Your task to perform on an android device: change keyboard looks Image 0: 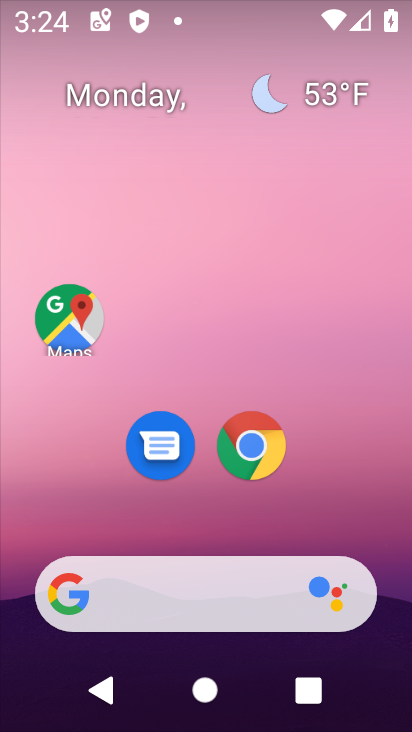
Step 0: drag from (239, 523) to (264, 1)
Your task to perform on an android device: change keyboard looks Image 1: 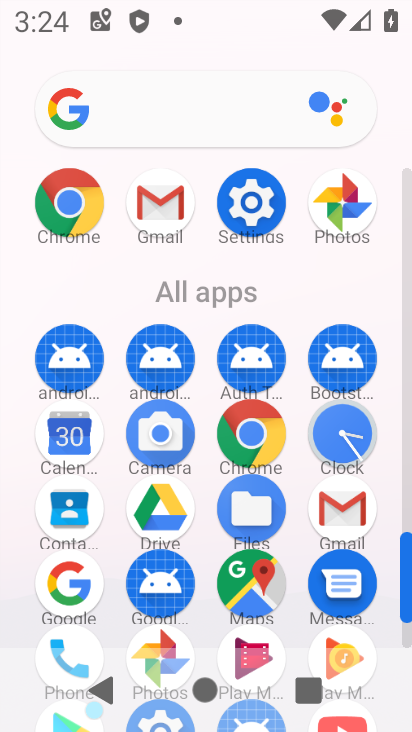
Step 1: click (239, 207)
Your task to perform on an android device: change keyboard looks Image 2: 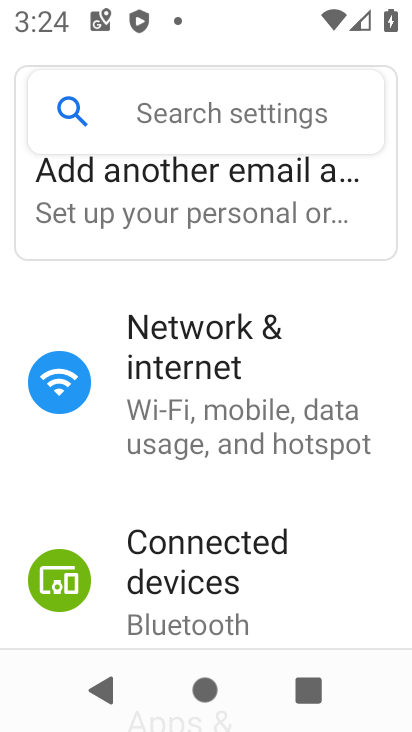
Step 2: drag from (202, 502) to (259, 140)
Your task to perform on an android device: change keyboard looks Image 3: 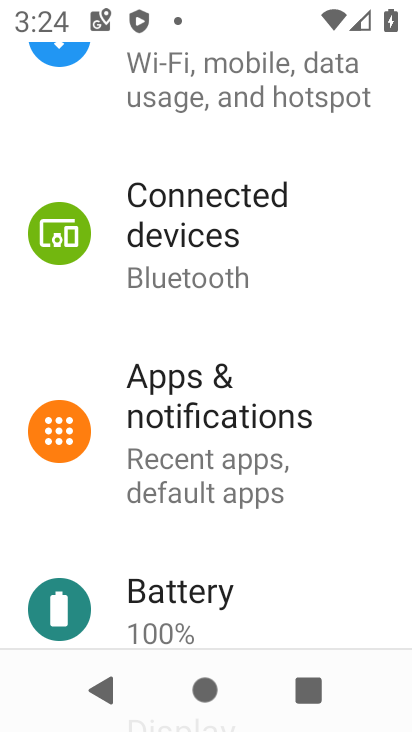
Step 3: drag from (219, 514) to (251, 125)
Your task to perform on an android device: change keyboard looks Image 4: 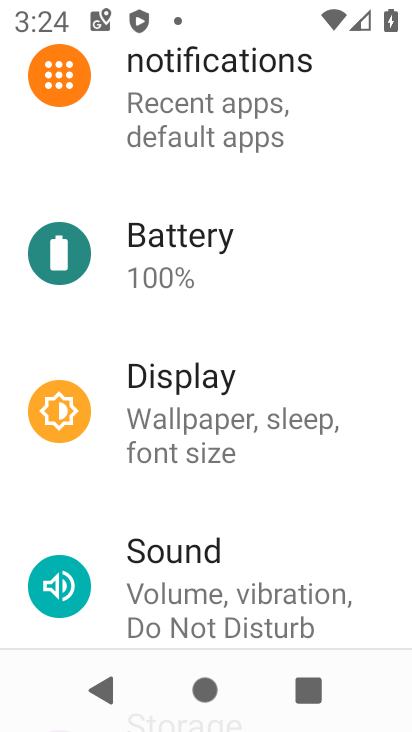
Step 4: drag from (184, 542) to (215, 262)
Your task to perform on an android device: change keyboard looks Image 5: 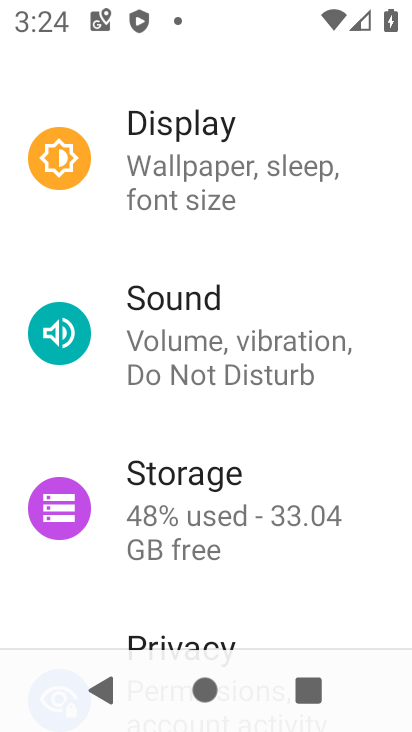
Step 5: drag from (188, 583) to (239, 235)
Your task to perform on an android device: change keyboard looks Image 6: 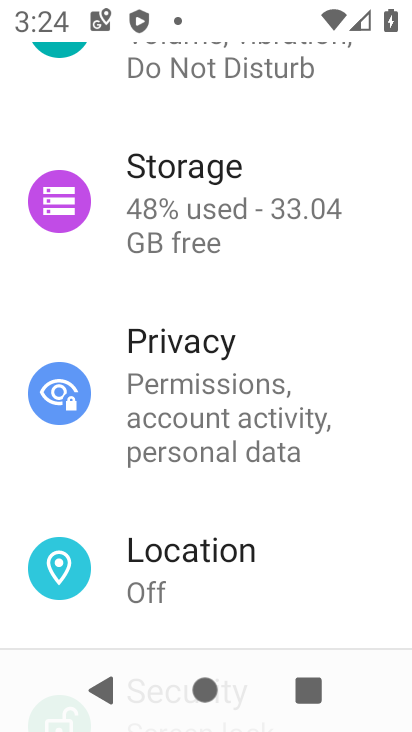
Step 6: drag from (171, 557) to (228, 279)
Your task to perform on an android device: change keyboard looks Image 7: 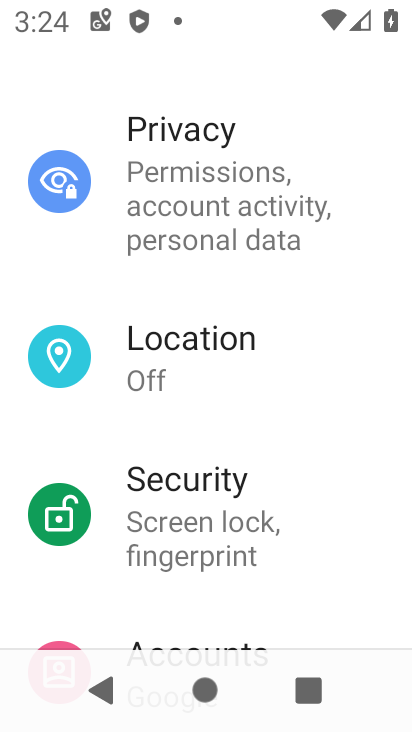
Step 7: drag from (209, 516) to (240, 284)
Your task to perform on an android device: change keyboard looks Image 8: 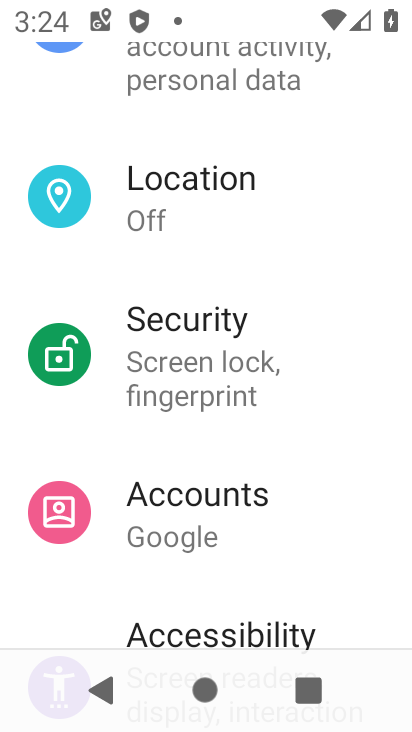
Step 8: drag from (204, 473) to (260, 208)
Your task to perform on an android device: change keyboard looks Image 9: 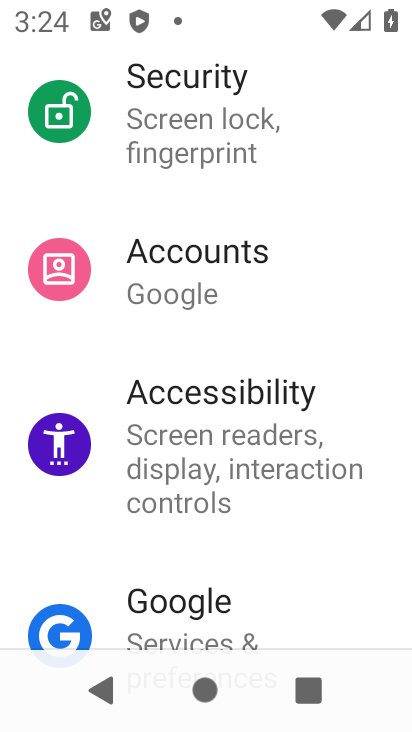
Step 9: drag from (184, 564) to (284, 104)
Your task to perform on an android device: change keyboard looks Image 10: 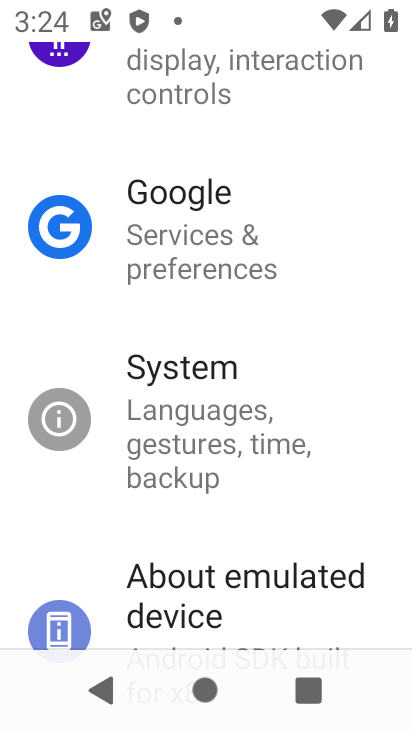
Step 10: click (180, 403)
Your task to perform on an android device: change keyboard looks Image 11: 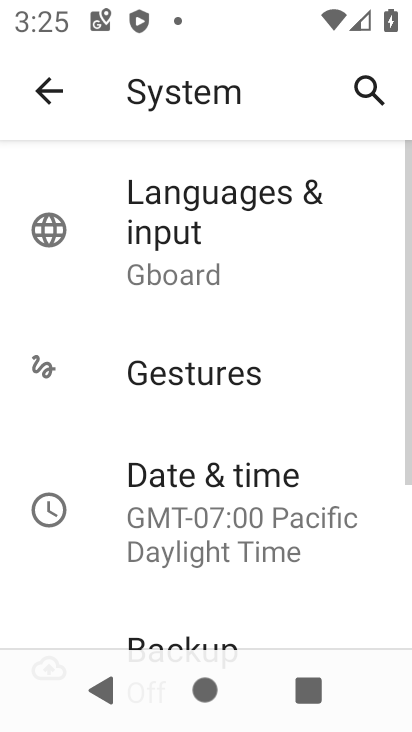
Step 11: drag from (178, 501) to (226, 238)
Your task to perform on an android device: change keyboard looks Image 12: 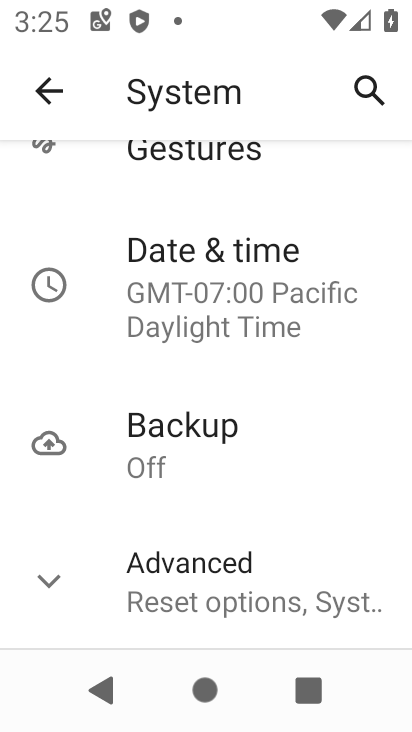
Step 12: drag from (222, 242) to (161, 726)
Your task to perform on an android device: change keyboard looks Image 13: 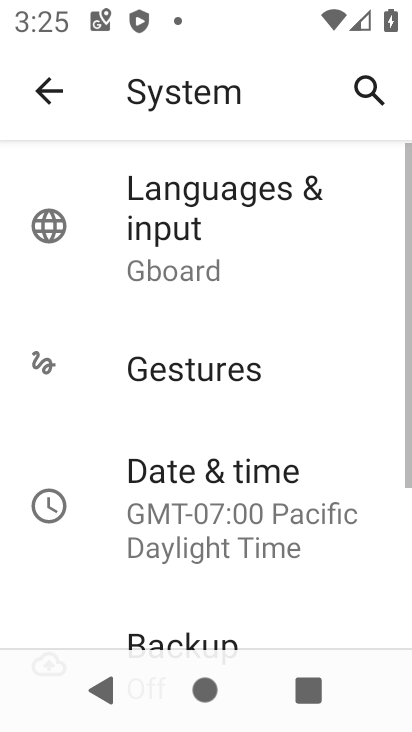
Step 13: click (184, 247)
Your task to perform on an android device: change keyboard looks Image 14: 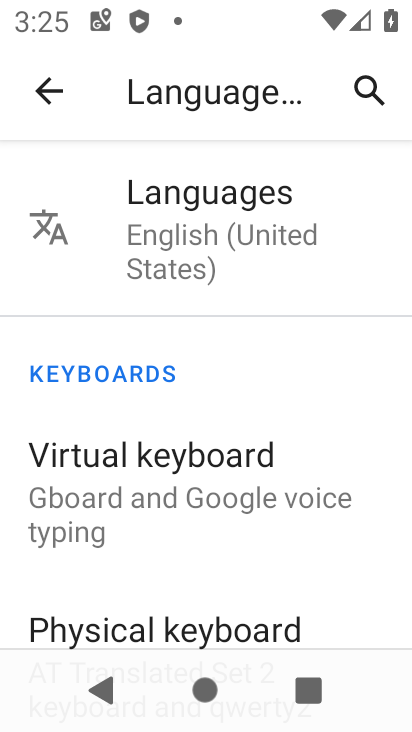
Step 14: click (139, 495)
Your task to perform on an android device: change keyboard looks Image 15: 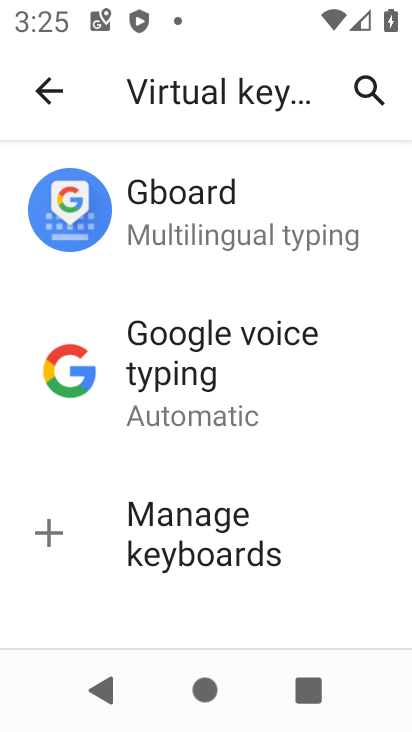
Step 15: click (201, 240)
Your task to perform on an android device: change keyboard looks Image 16: 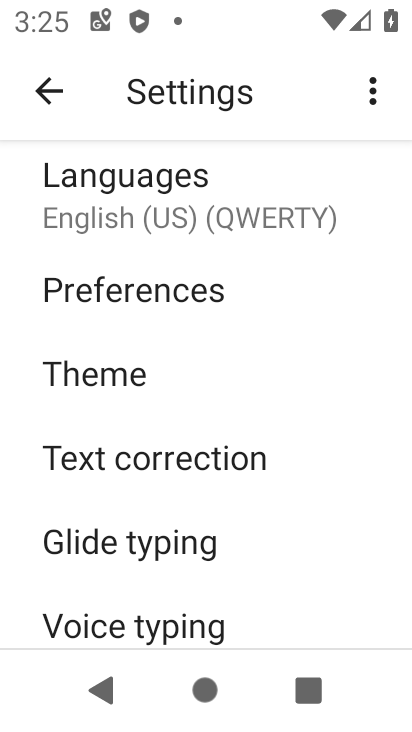
Step 16: click (133, 372)
Your task to perform on an android device: change keyboard looks Image 17: 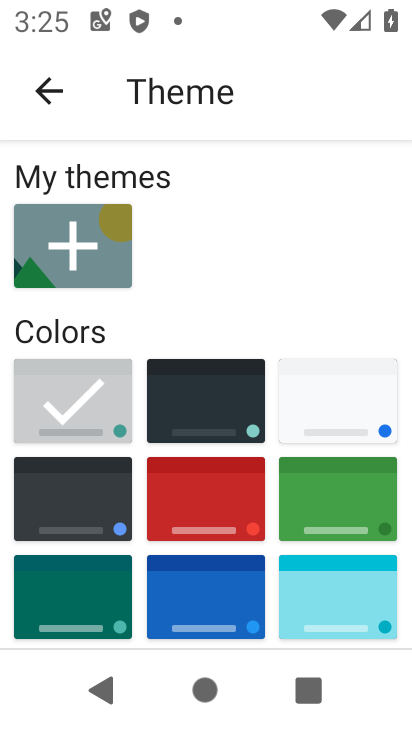
Step 17: click (184, 408)
Your task to perform on an android device: change keyboard looks Image 18: 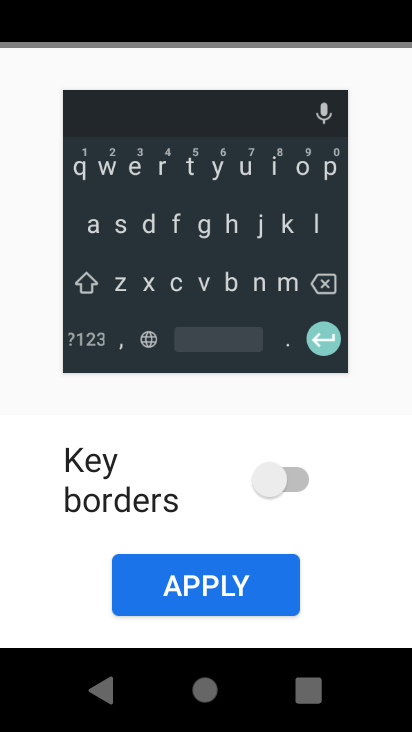
Step 18: click (192, 578)
Your task to perform on an android device: change keyboard looks Image 19: 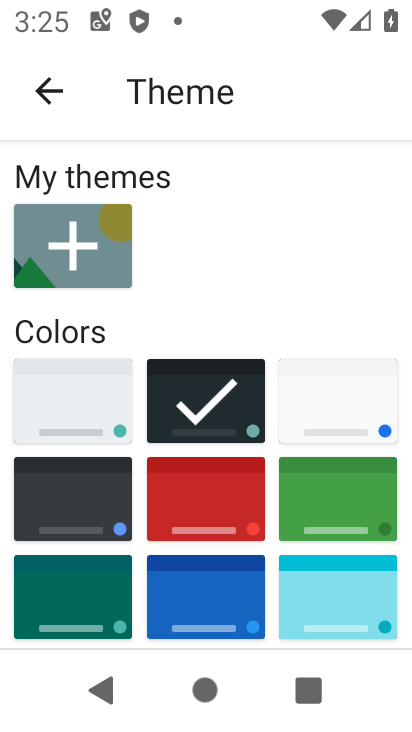
Step 19: task complete